Your task to perform on an android device: turn on airplane mode Image 0: 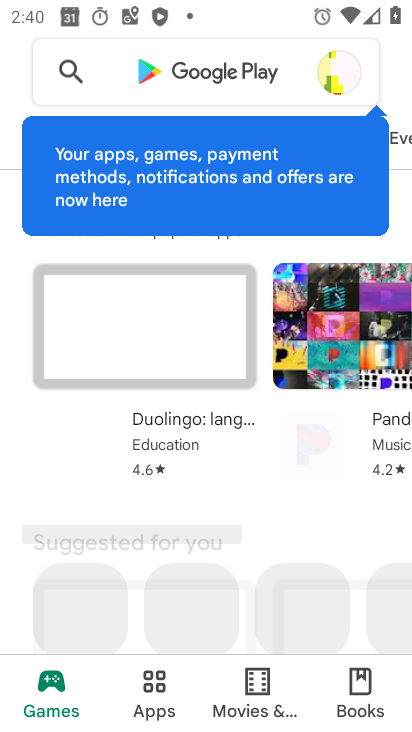
Step 0: press home button
Your task to perform on an android device: turn on airplane mode Image 1: 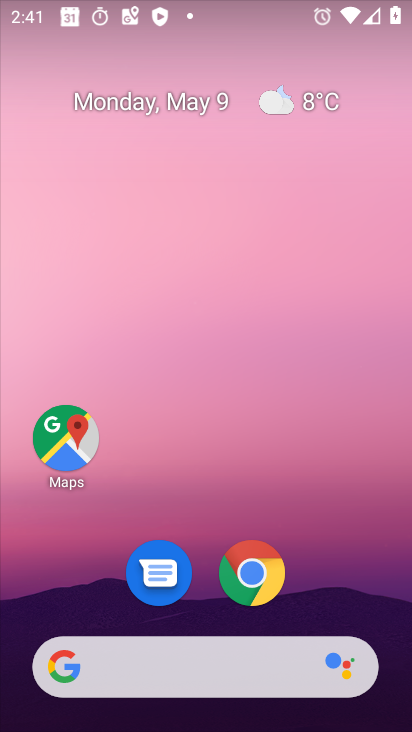
Step 1: drag from (169, 659) to (319, 177)
Your task to perform on an android device: turn on airplane mode Image 2: 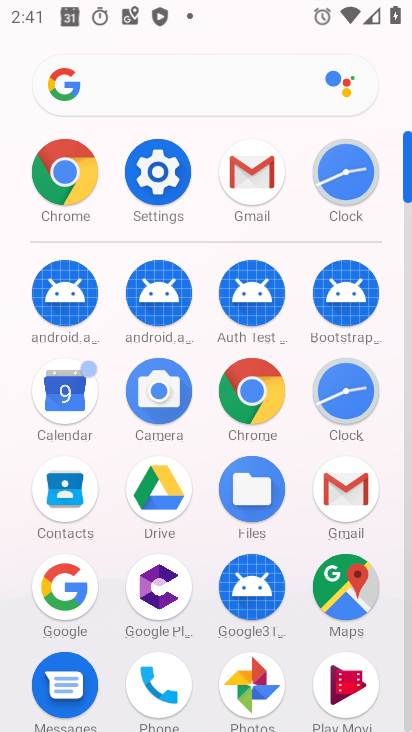
Step 2: click (163, 182)
Your task to perform on an android device: turn on airplane mode Image 3: 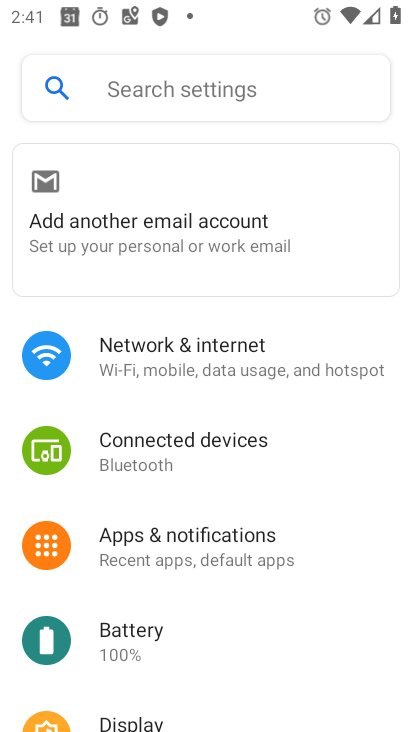
Step 3: click (186, 353)
Your task to perform on an android device: turn on airplane mode Image 4: 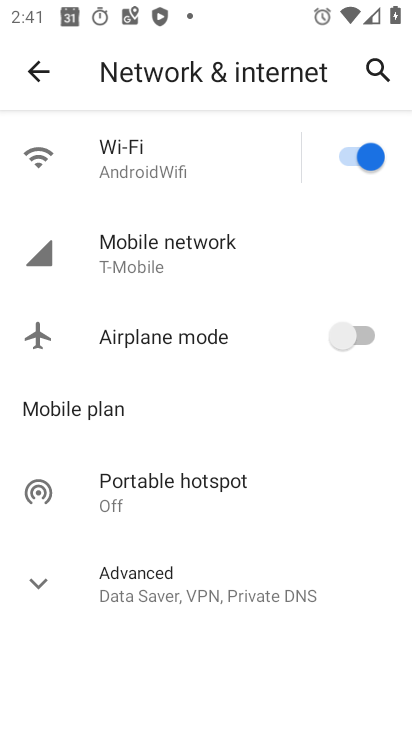
Step 4: click (360, 332)
Your task to perform on an android device: turn on airplane mode Image 5: 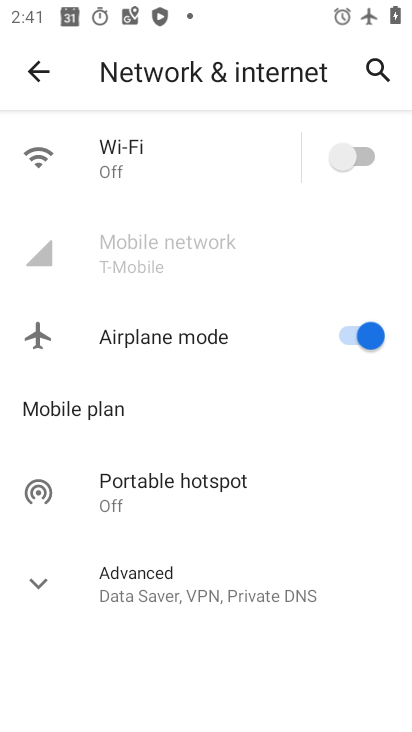
Step 5: task complete